Your task to perform on an android device: Go to wifi settings Image 0: 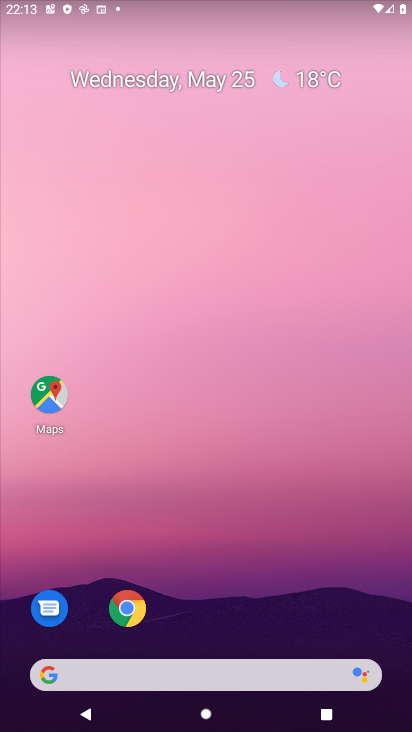
Step 0: drag from (291, 572) to (224, 58)
Your task to perform on an android device: Go to wifi settings Image 1: 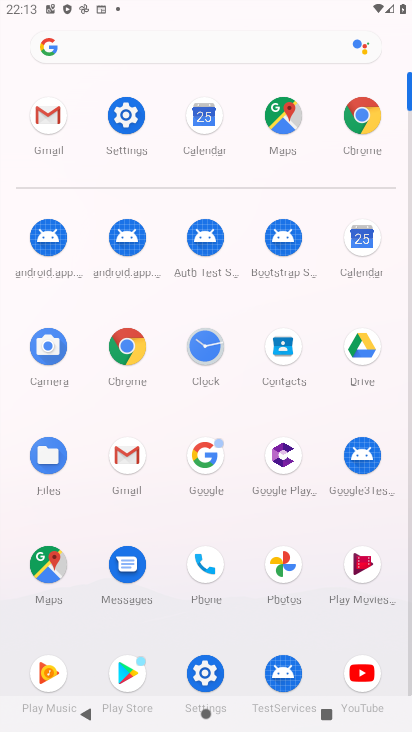
Step 1: click (127, 111)
Your task to perform on an android device: Go to wifi settings Image 2: 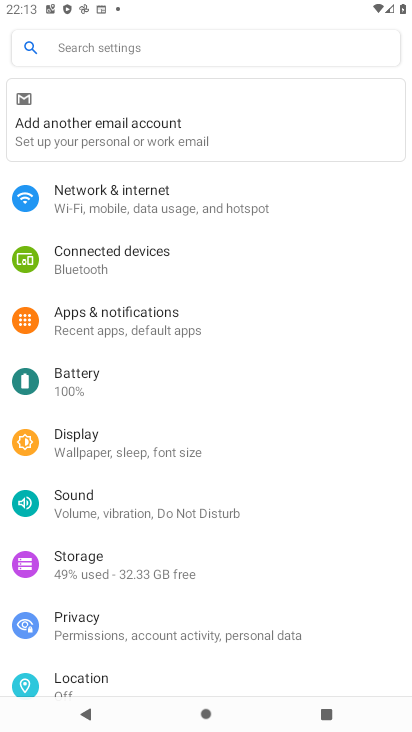
Step 2: click (160, 194)
Your task to perform on an android device: Go to wifi settings Image 3: 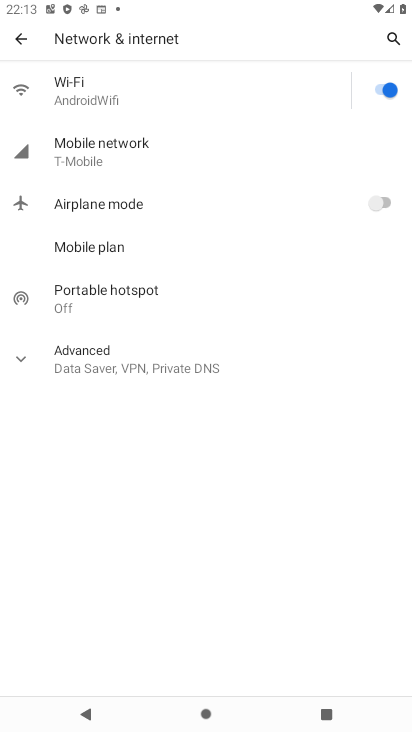
Step 3: click (219, 100)
Your task to perform on an android device: Go to wifi settings Image 4: 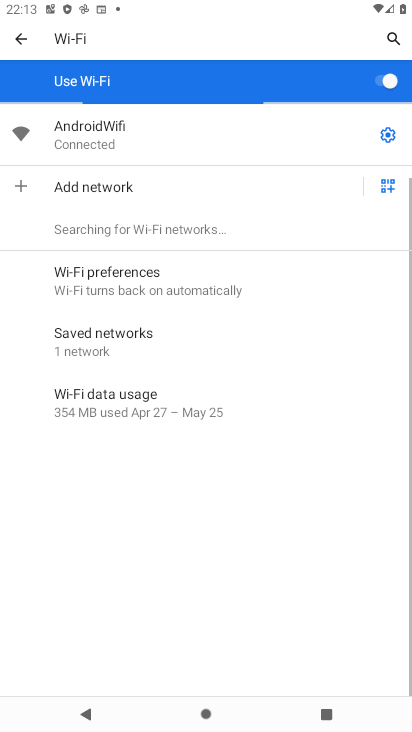
Step 4: task complete